Your task to perform on an android device: open sync settings in chrome Image 0: 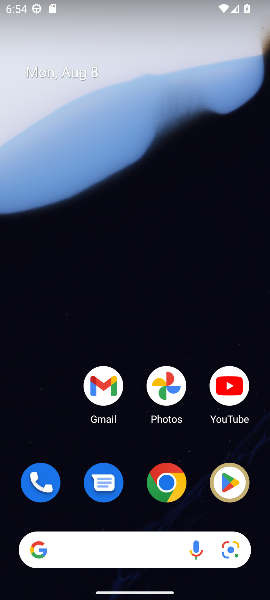
Step 0: drag from (157, 471) to (181, 9)
Your task to perform on an android device: open sync settings in chrome Image 1: 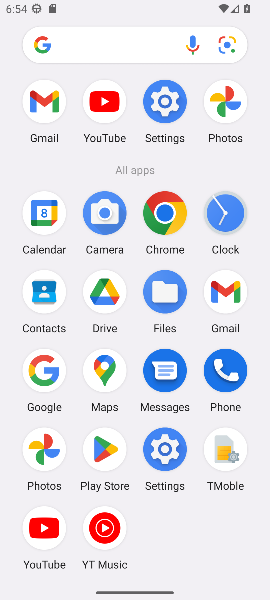
Step 1: click (158, 210)
Your task to perform on an android device: open sync settings in chrome Image 2: 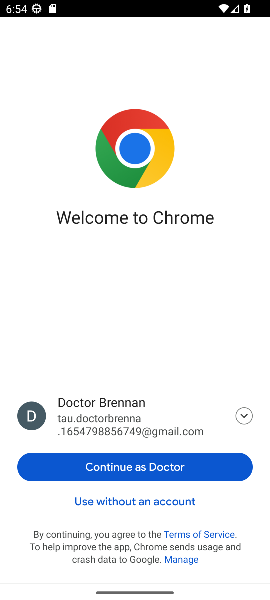
Step 2: click (192, 476)
Your task to perform on an android device: open sync settings in chrome Image 3: 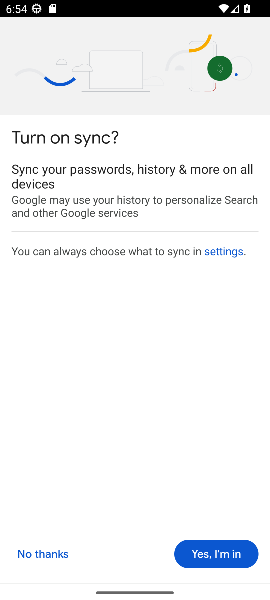
Step 3: click (221, 555)
Your task to perform on an android device: open sync settings in chrome Image 4: 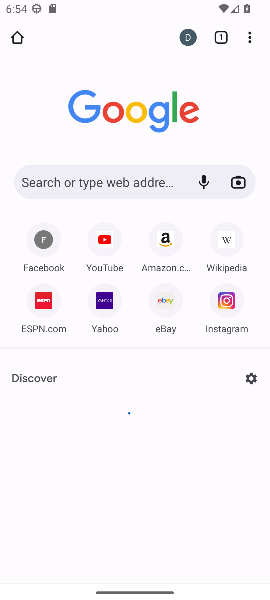
Step 4: drag from (242, 43) to (151, 341)
Your task to perform on an android device: open sync settings in chrome Image 5: 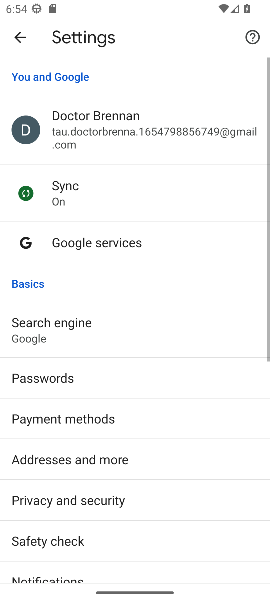
Step 5: drag from (123, 536) to (134, 123)
Your task to perform on an android device: open sync settings in chrome Image 6: 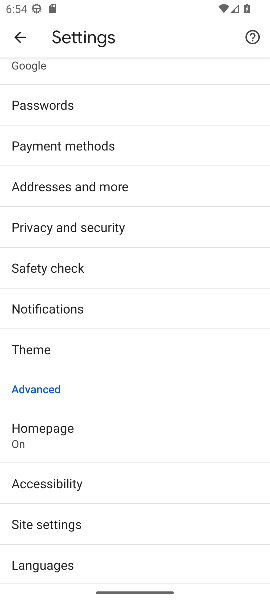
Step 6: click (80, 522)
Your task to perform on an android device: open sync settings in chrome Image 7: 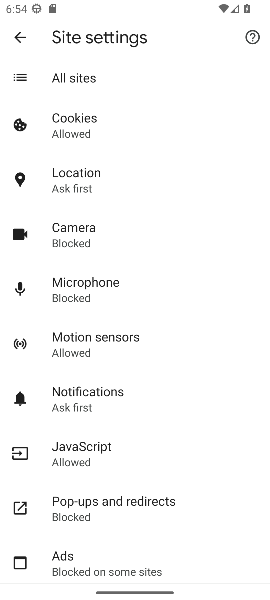
Step 7: drag from (114, 533) to (92, 132)
Your task to perform on an android device: open sync settings in chrome Image 8: 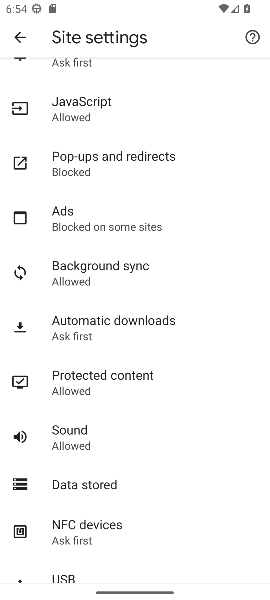
Step 8: click (106, 263)
Your task to perform on an android device: open sync settings in chrome Image 9: 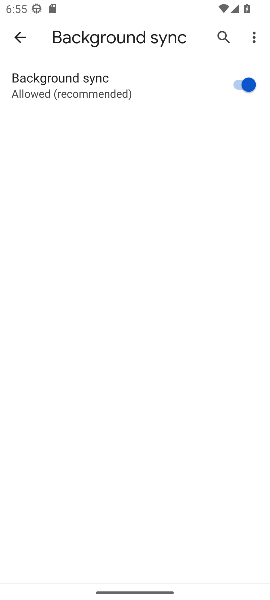
Step 9: task complete